Your task to perform on an android device: change keyboard looks Image 0: 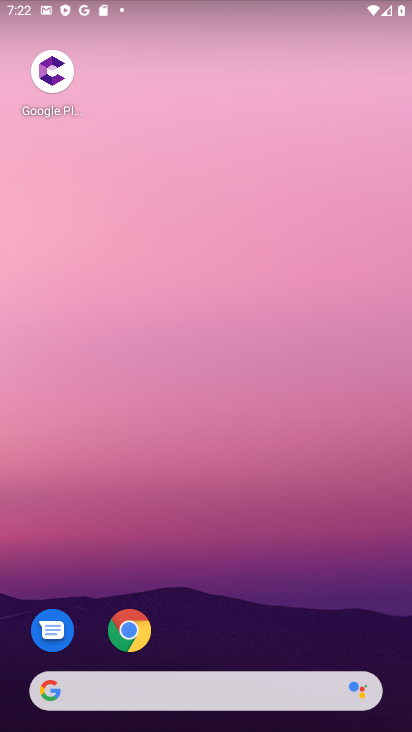
Step 0: drag from (361, 606) to (365, 117)
Your task to perform on an android device: change keyboard looks Image 1: 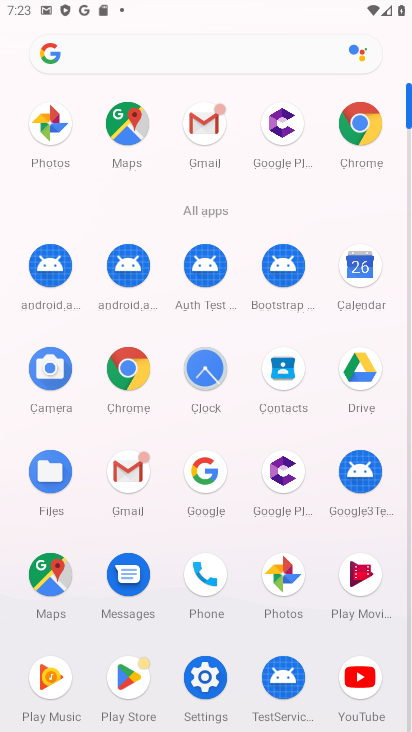
Step 1: click (207, 676)
Your task to perform on an android device: change keyboard looks Image 2: 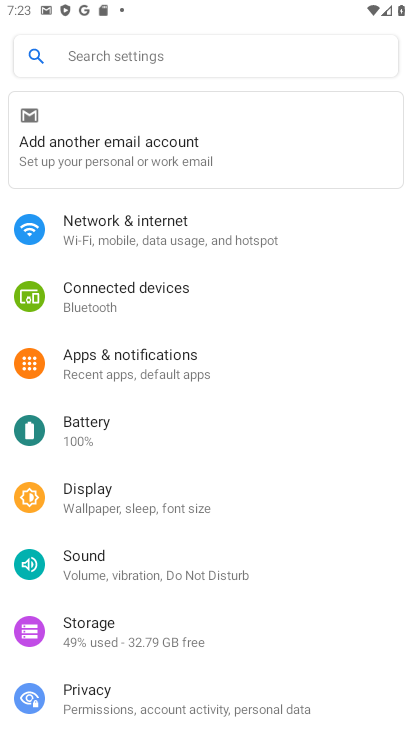
Step 2: drag from (333, 604) to (354, 454)
Your task to perform on an android device: change keyboard looks Image 3: 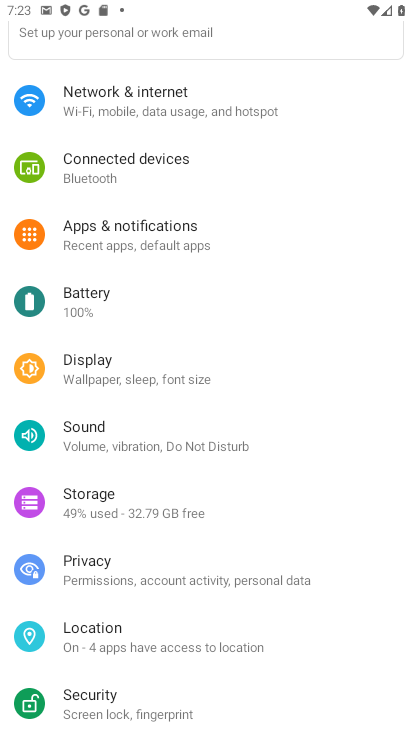
Step 3: drag from (343, 533) to (344, 394)
Your task to perform on an android device: change keyboard looks Image 4: 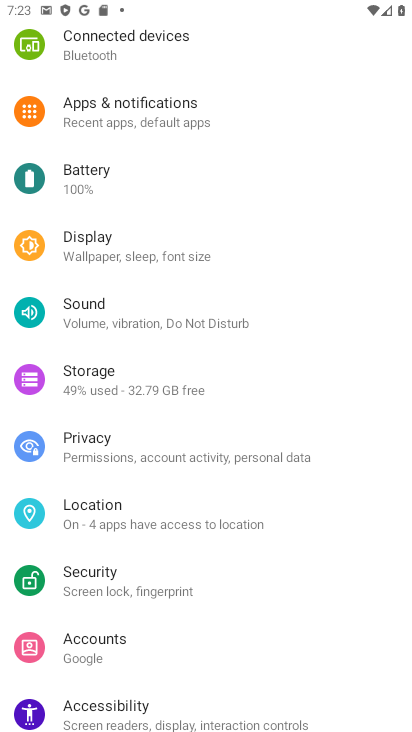
Step 4: drag from (340, 572) to (349, 362)
Your task to perform on an android device: change keyboard looks Image 5: 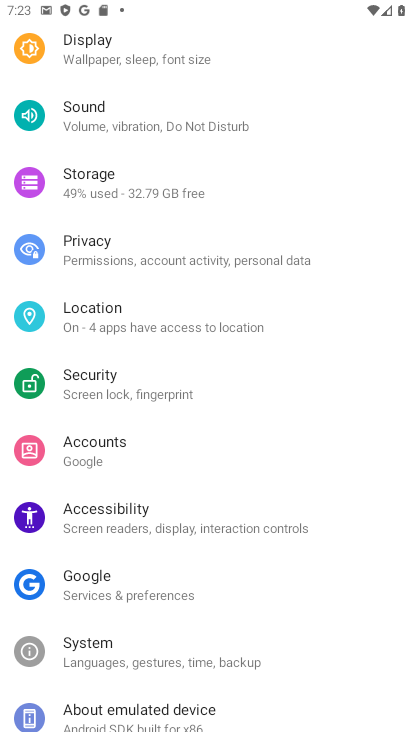
Step 5: drag from (348, 618) to (356, 436)
Your task to perform on an android device: change keyboard looks Image 6: 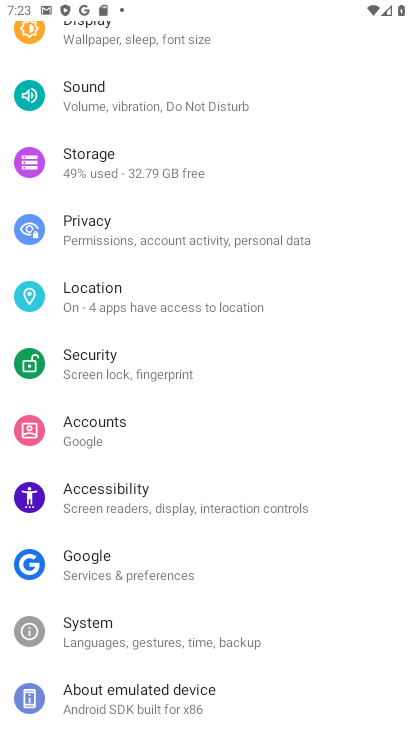
Step 6: click (277, 637)
Your task to perform on an android device: change keyboard looks Image 7: 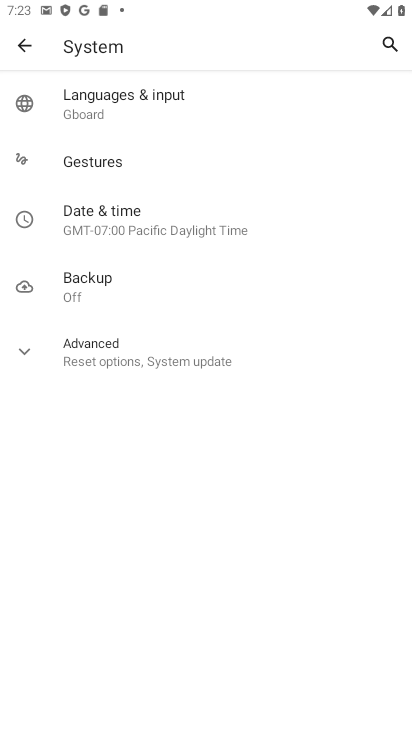
Step 7: click (81, 105)
Your task to perform on an android device: change keyboard looks Image 8: 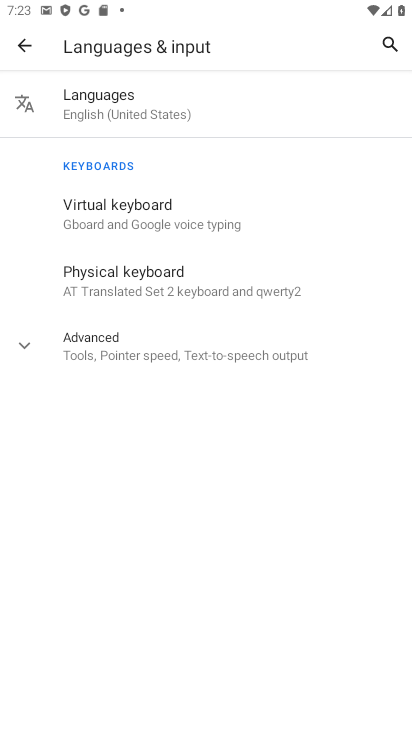
Step 8: click (218, 223)
Your task to perform on an android device: change keyboard looks Image 9: 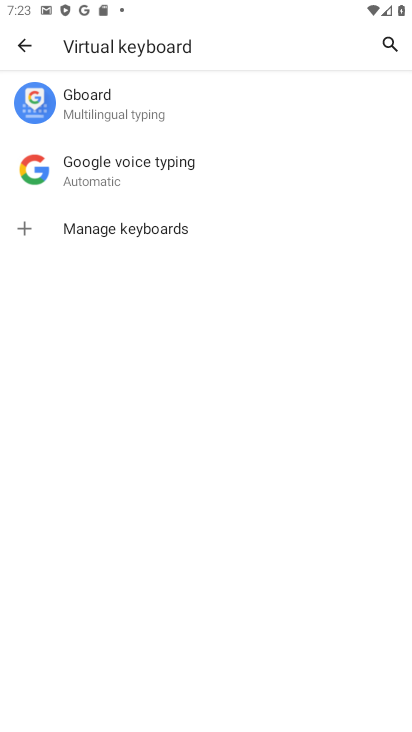
Step 9: click (141, 97)
Your task to perform on an android device: change keyboard looks Image 10: 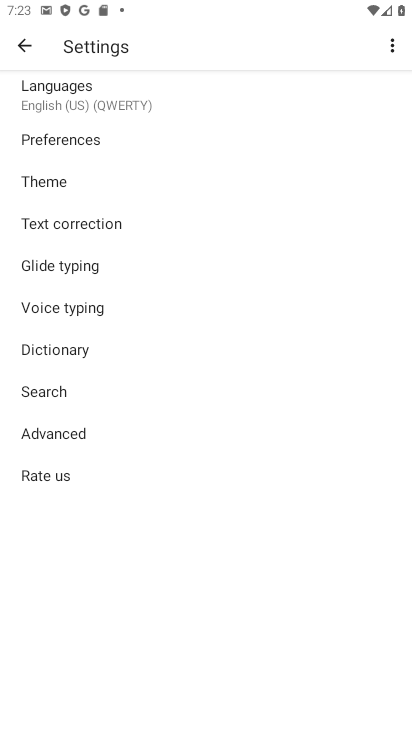
Step 10: click (116, 190)
Your task to perform on an android device: change keyboard looks Image 11: 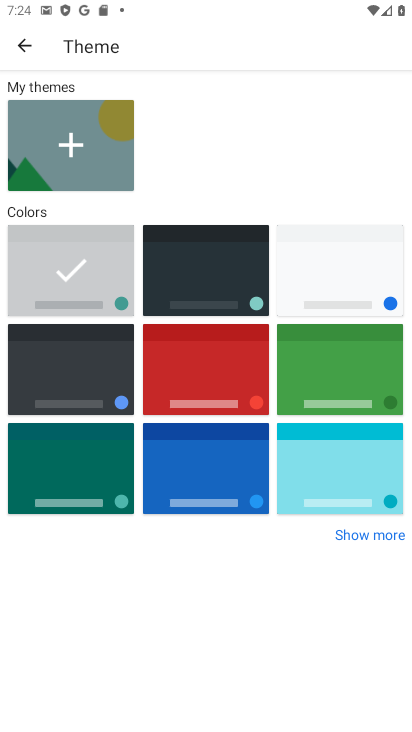
Step 11: click (186, 269)
Your task to perform on an android device: change keyboard looks Image 12: 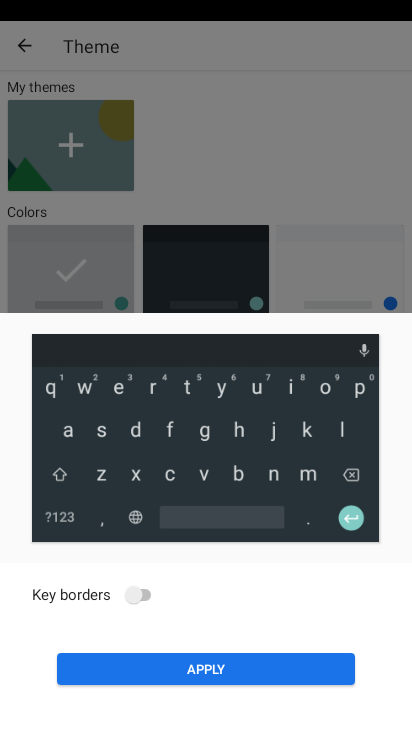
Step 12: click (241, 669)
Your task to perform on an android device: change keyboard looks Image 13: 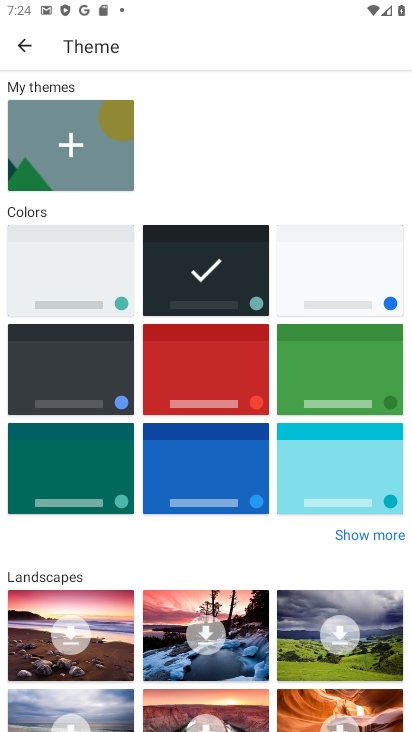
Step 13: task complete